Your task to perform on an android device: check the backup settings in the google photos Image 0: 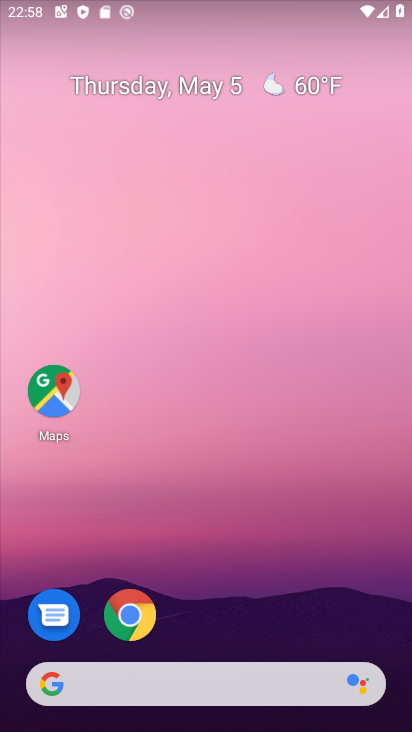
Step 0: drag from (261, 599) to (207, 126)
Your task to perform on an android device: check the backup settings in the google photos Image 1: 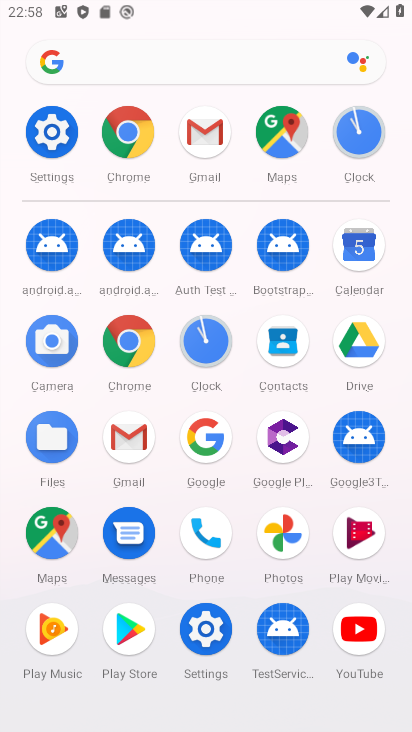
Step 1: click (282, 533)
Your task to perform on an android device: check the backup settings in the google photos Image 2: 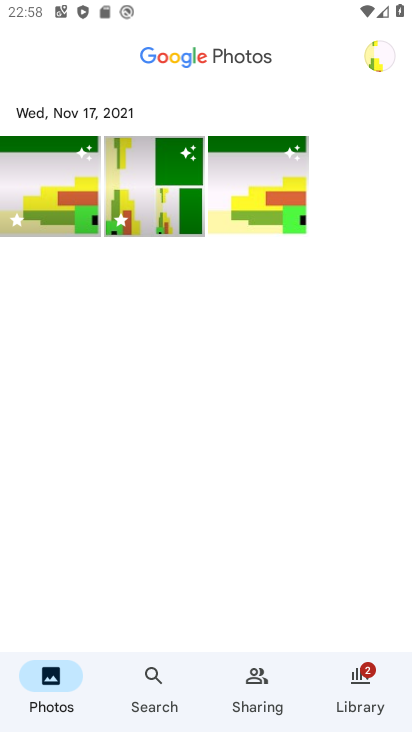
Step 2: click (377, 51)
Your task to perform on an android device: check the backup settings in the google photos Image 3: 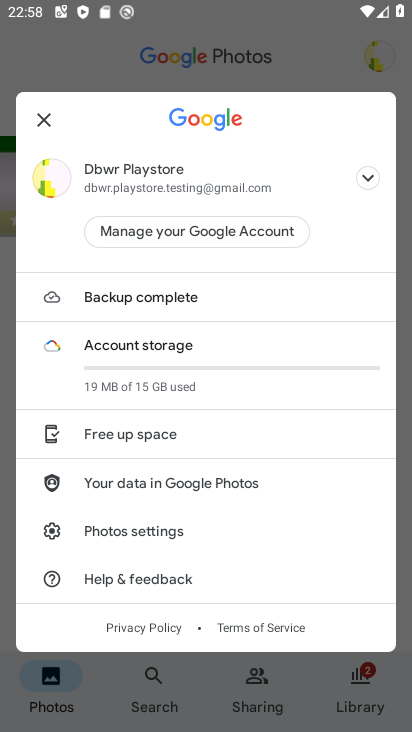
Step 3: click (159, 534)
Your task to perform on an android device: check the backup settings in the google photos Image 4: 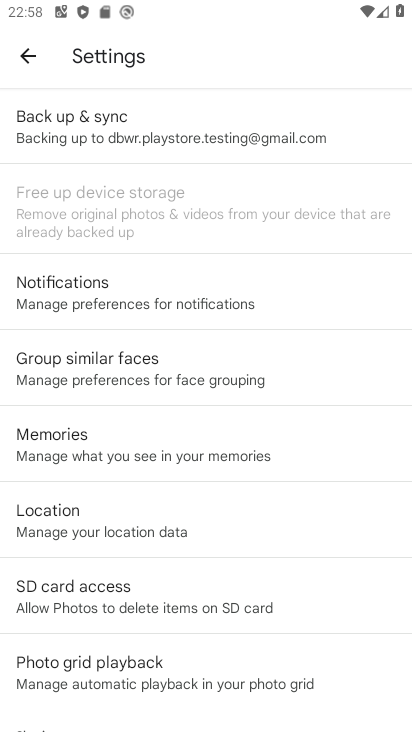
Step 4: click (104, 136)
Your task to perform on an android device: check the backup settings in the google photos Image 5: 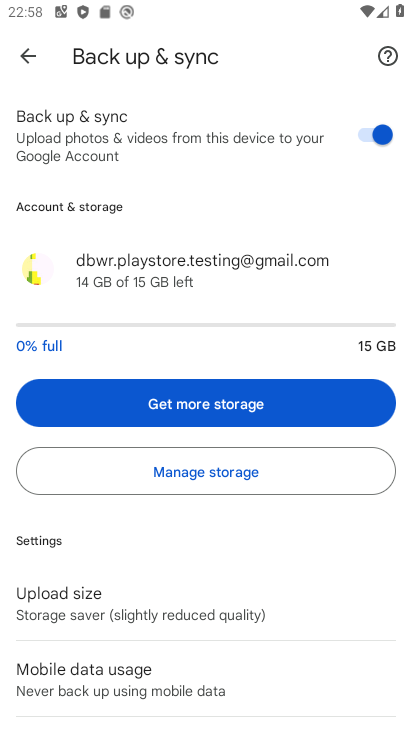
Step 5: task complete